Your task to perform on an android device: Go to wifi settings Image 0: 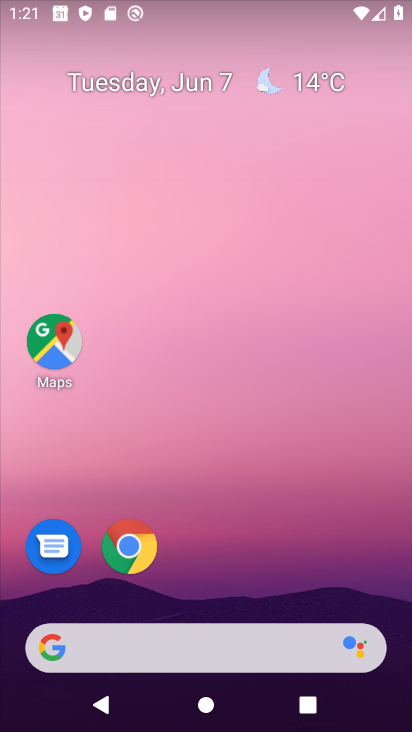
Step 0: drag from (251, 599) to (179, 228)
Your task to perform on an android device: Go to wifi settings Image 1: 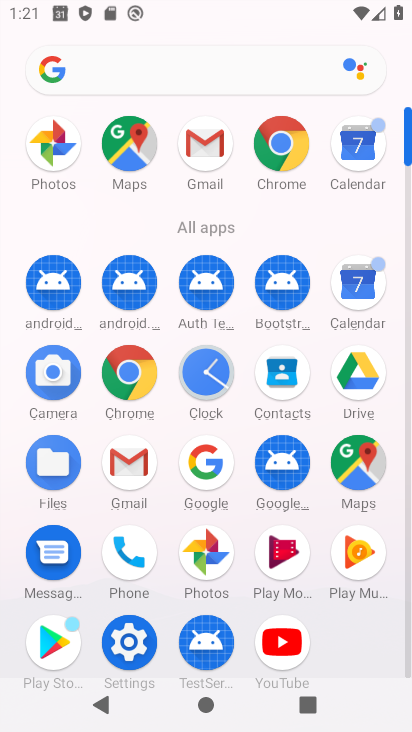
Step 1: click (138, 640)
Your task to perform on an android device: Go to wifi settings Image 2: 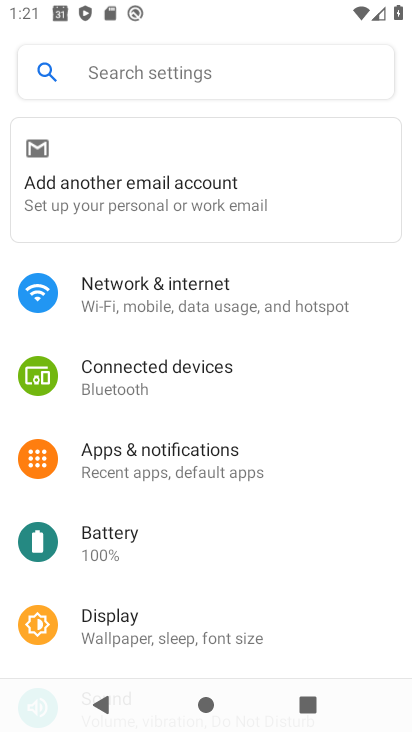
Step 2: click (219, 305)
Your task to perform on an android device: Go to wifi settings Image 3: 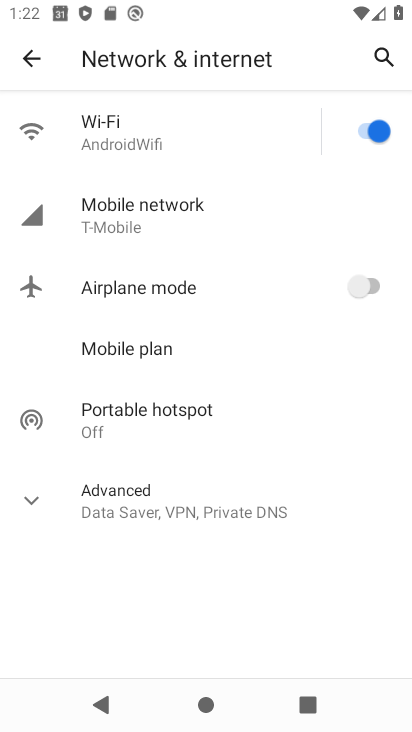
Step 3: click (91, 123)
Your task to perform on an android device: Go to wifi settings Image 4: 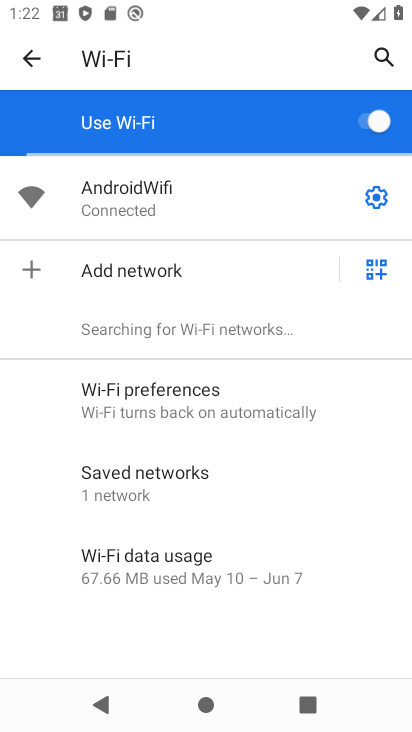
Step 4: task complete